Your task to perform on an android device: check google app version Image 0: 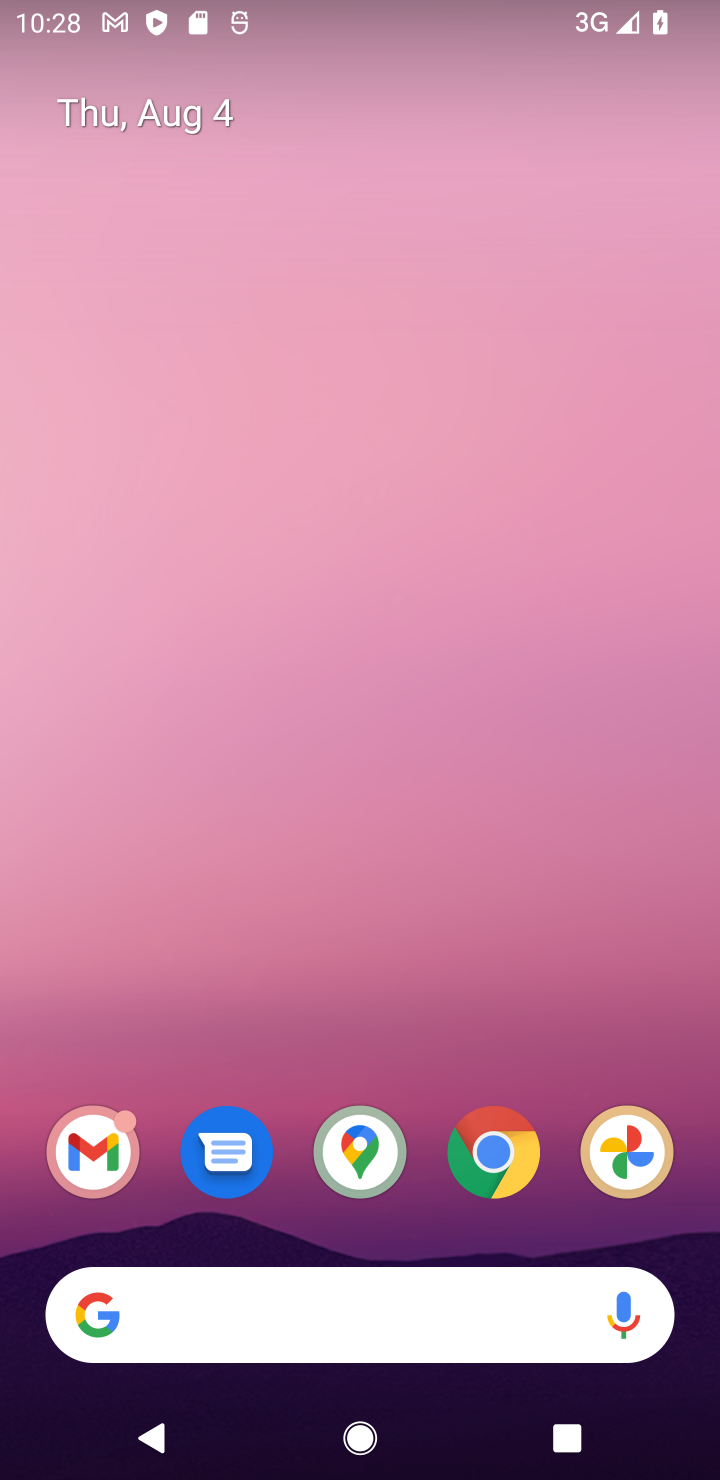
Step 0: click (94, 1304)
Your task to perform on an android device: check google app version Image 1: 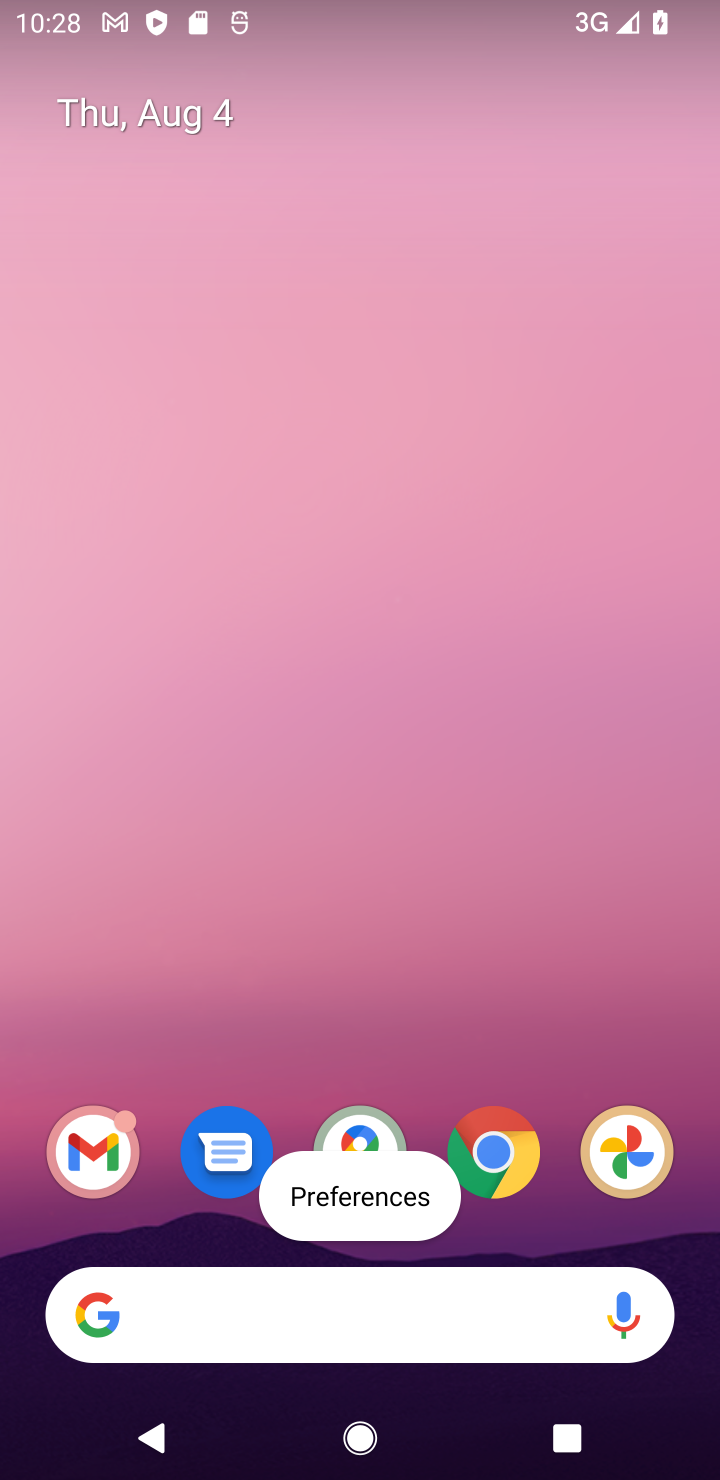
Step 1: click (96, 1302)
Your task to perform on an android device: check google app version Image 2: 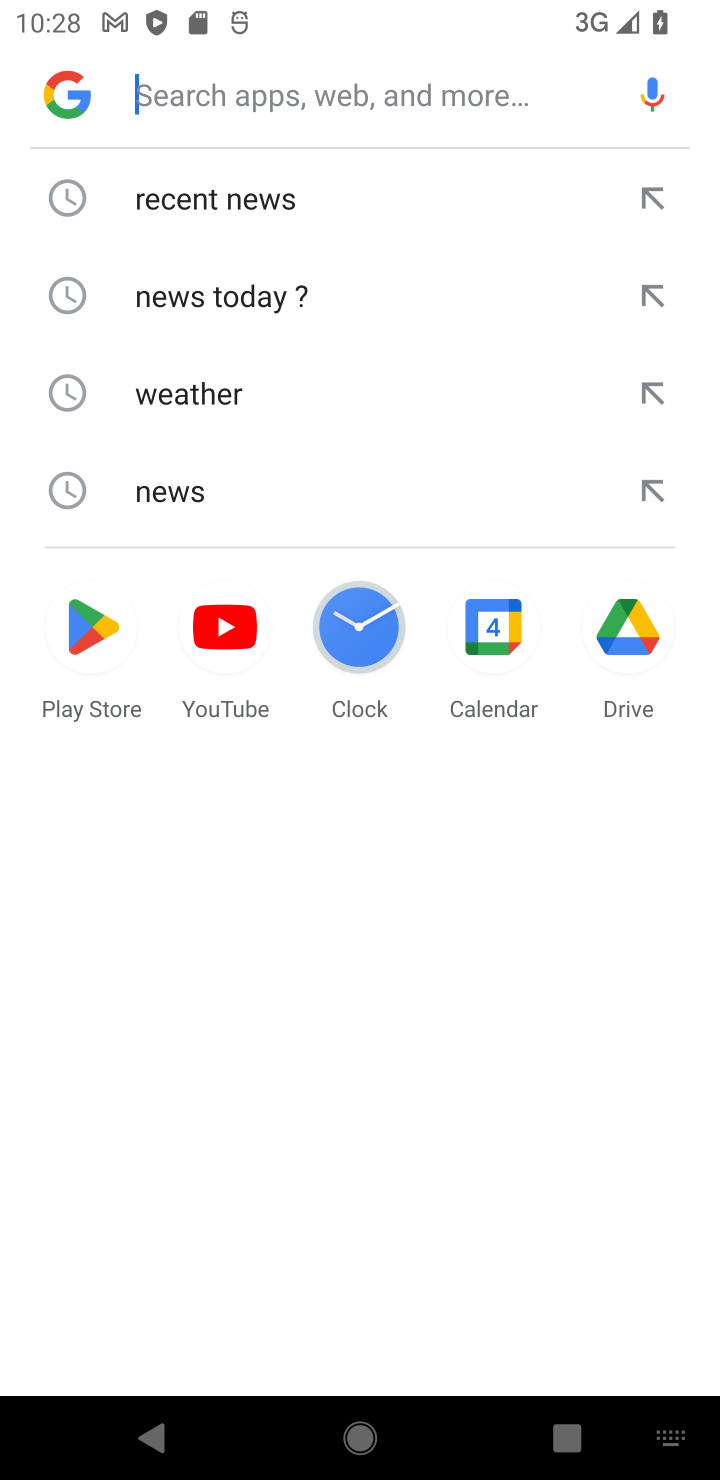
Step 2: click (71, 101)
Your task to perform on an android device: check google app version Image 3: 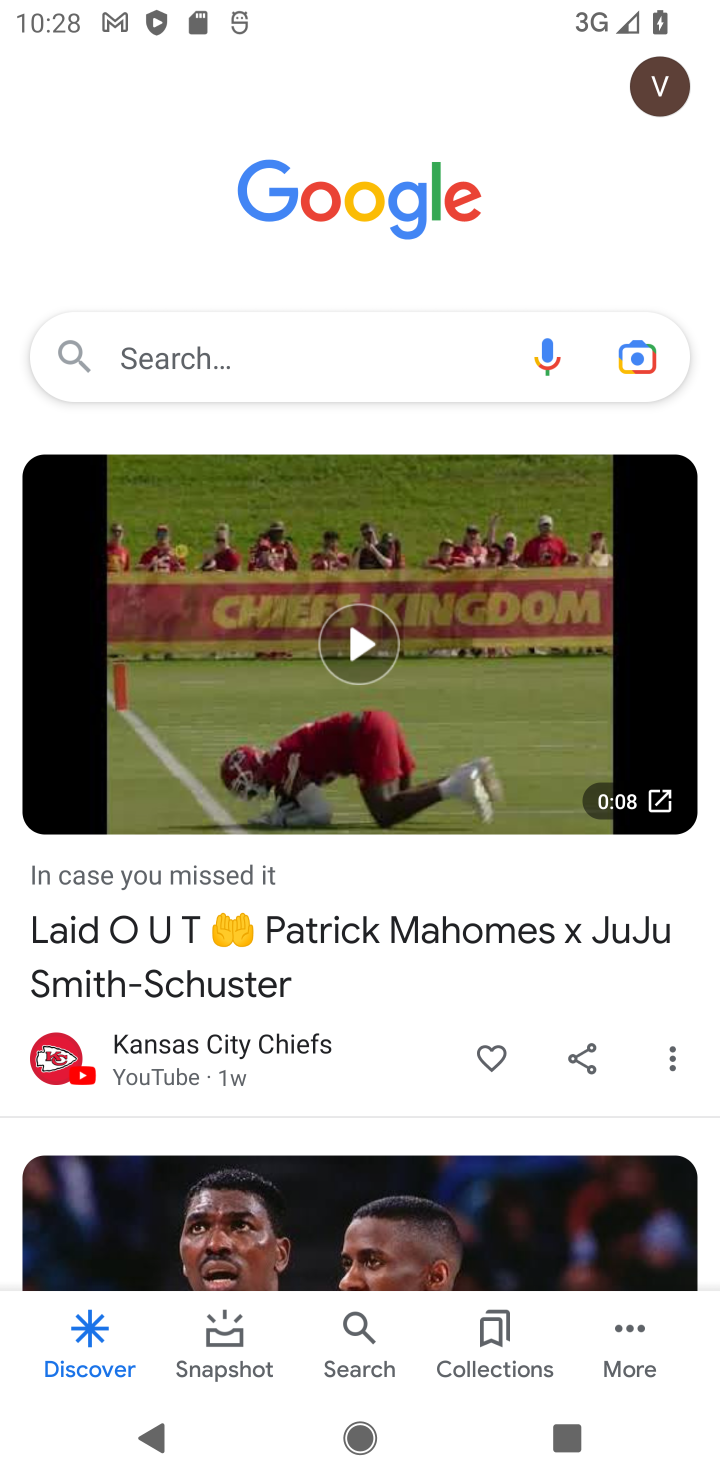
Step 3: click (606, 1347)
Your task to perform on an android device: check google app version Image 4: 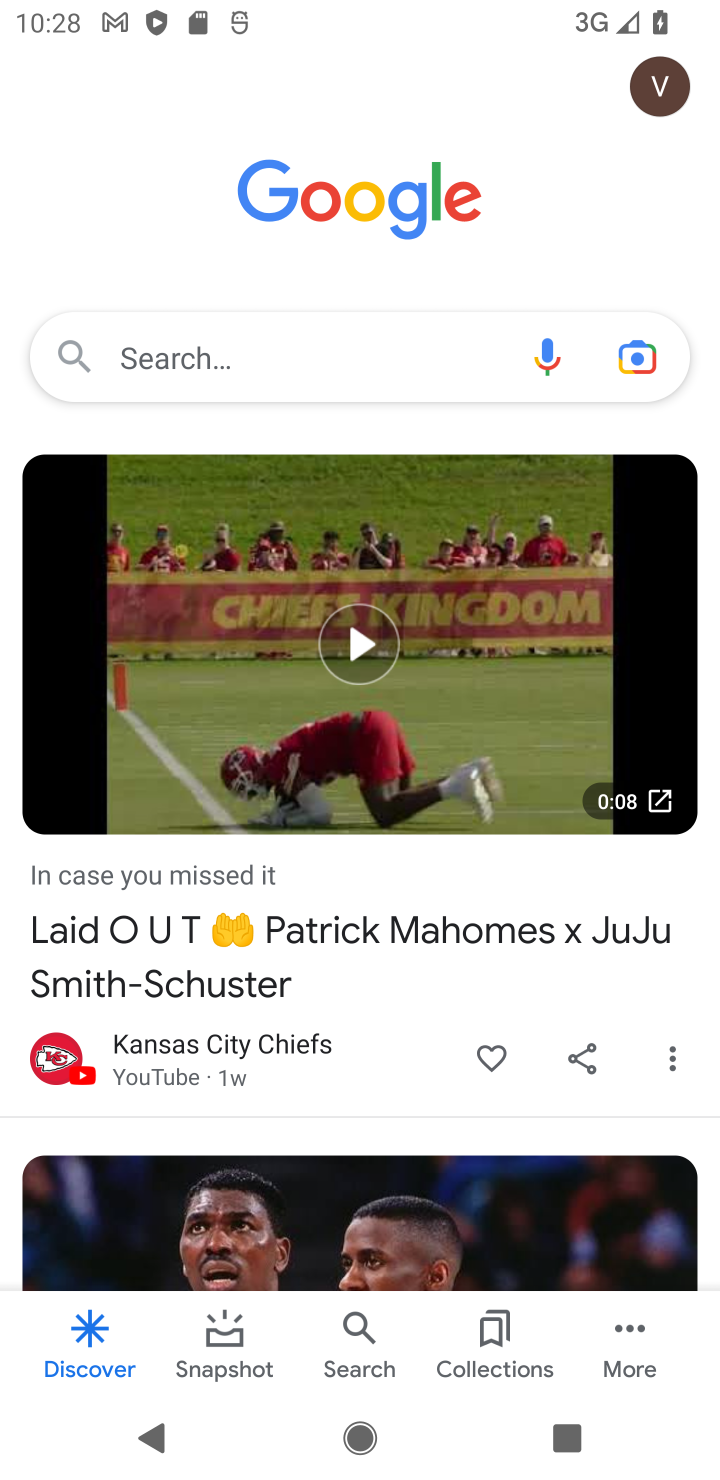
Step 4: click (618, 1327)
Your task to perform on an android device: check google app version Image 5: 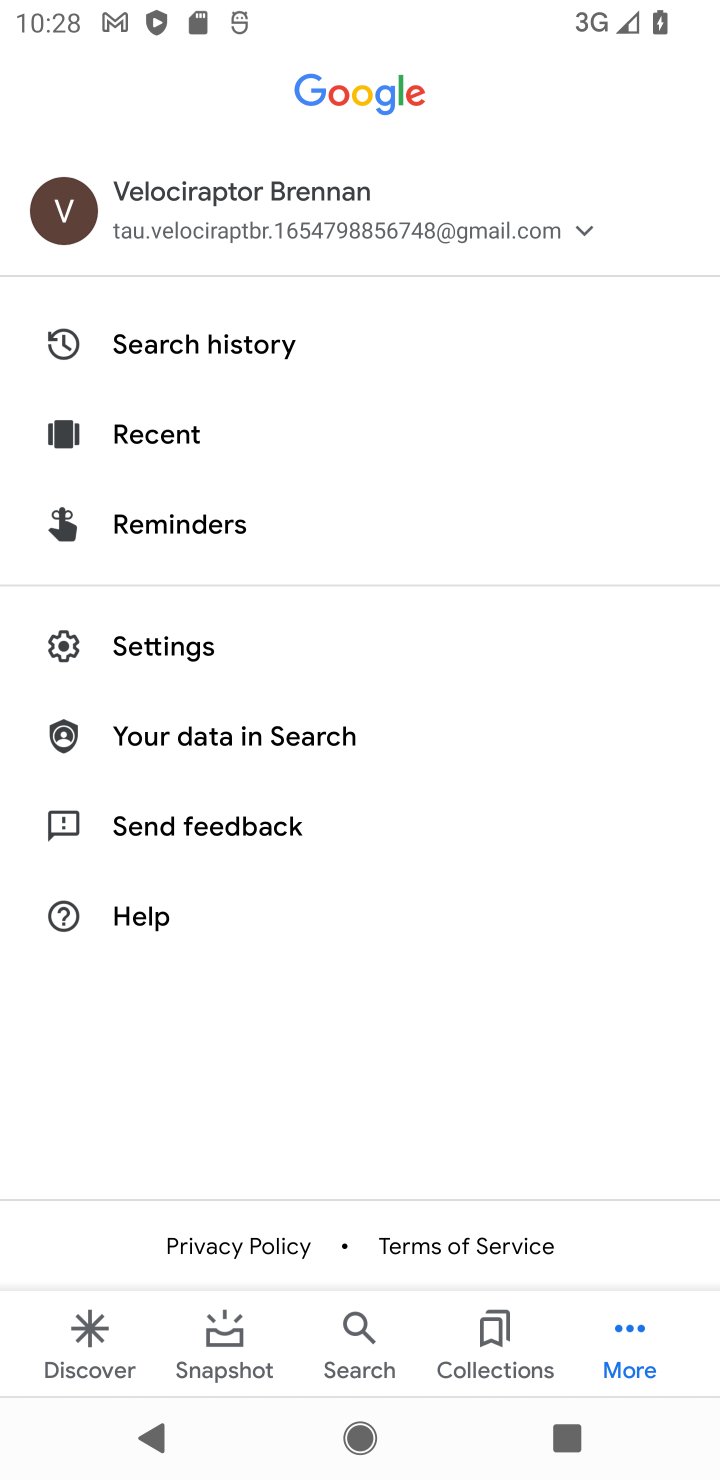
Step 5: click (173, 653)
Your task to perform on an android device: check google app version Image 6: 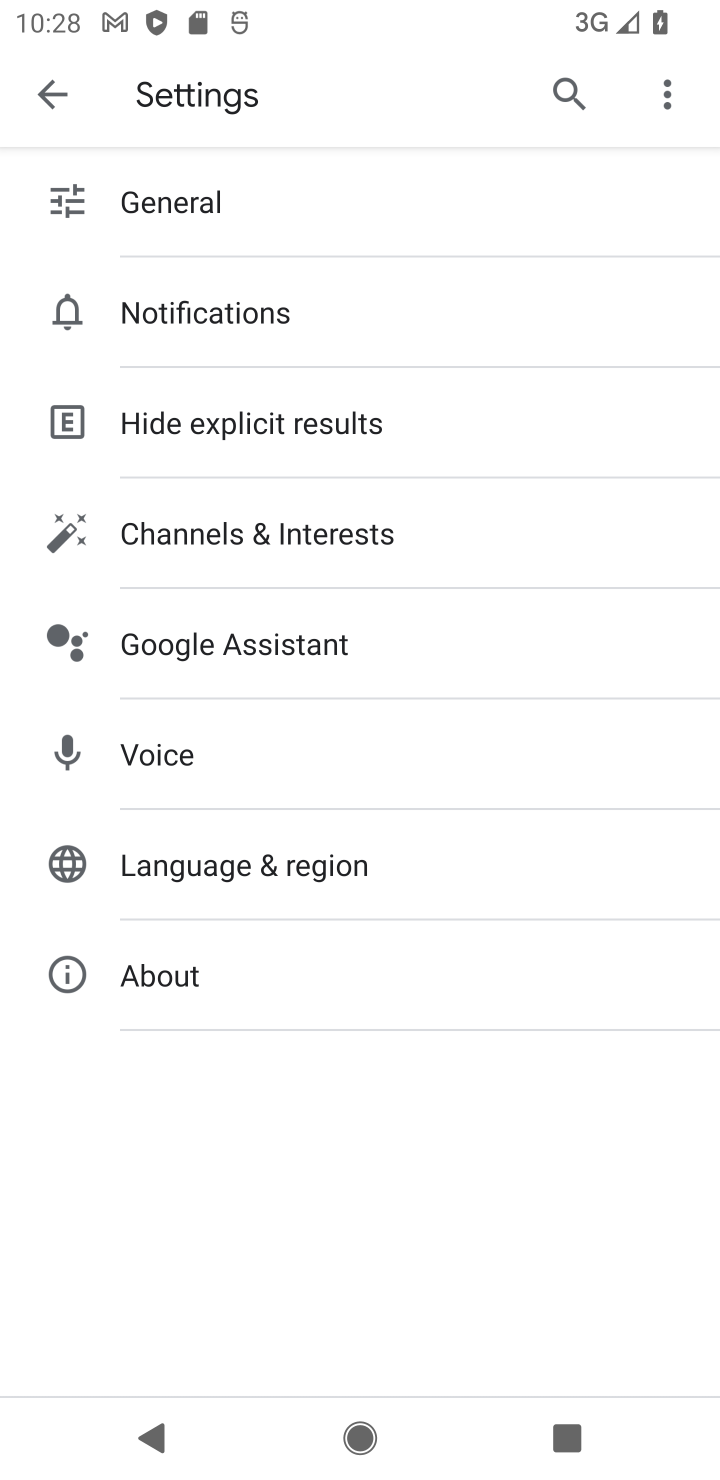
Step 6: click (211, 969)
Your task to perform on an android device: check google app version Image 7: 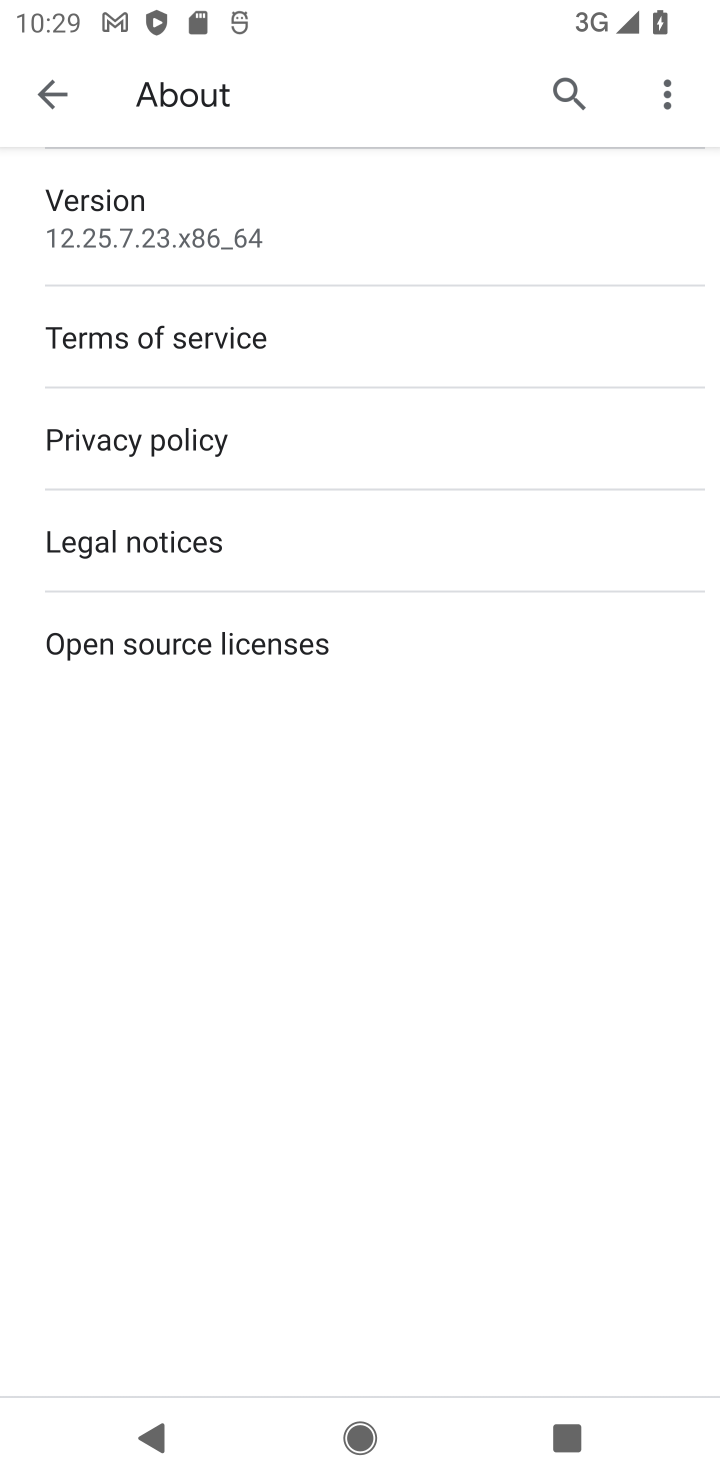
Step 7: task complete